Your task to perform on an android device: turn smart compose on in the gmail app Image 0: 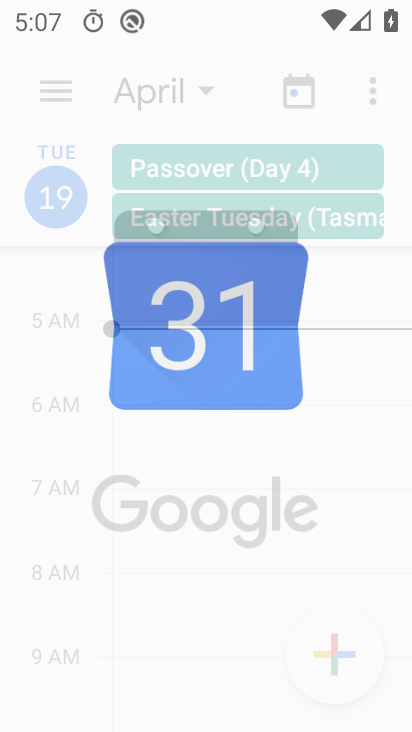
Step 0: drag from (223, 600) to (265, 168)
Your task to perform on an android device: turn smart compose on in the gmail app Image 1: 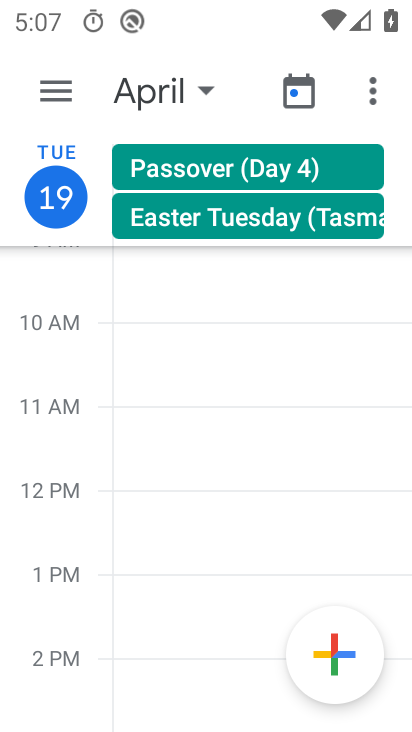
Step 1: press home button
Your task to perform on an android device: turn smart compose on in the gmail app Image 2: 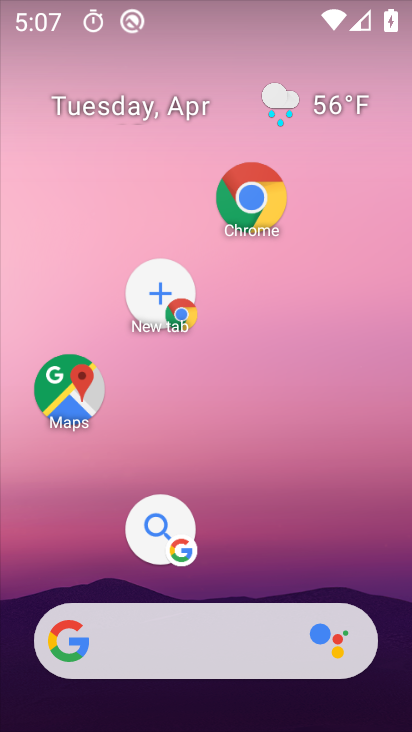
Step 2: drag from (226, 594) to (311, 154)
Your task to perform on an android device: turn smart compose on in the gmail app Image 3: 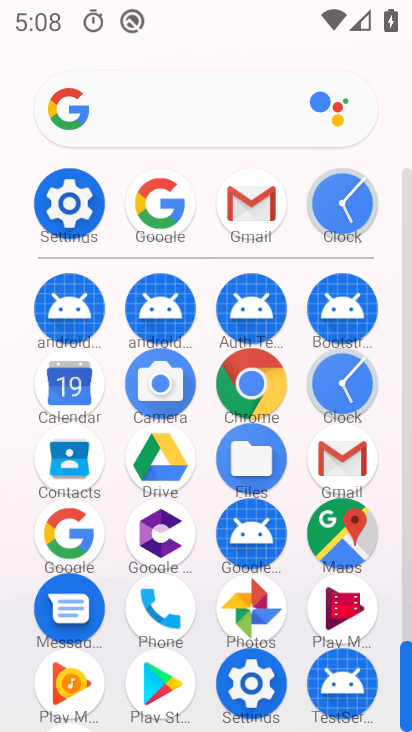
Step 3: click (63, 203)
Your task to perform on an android device: turn smart compose on in the gmail app Image 4: 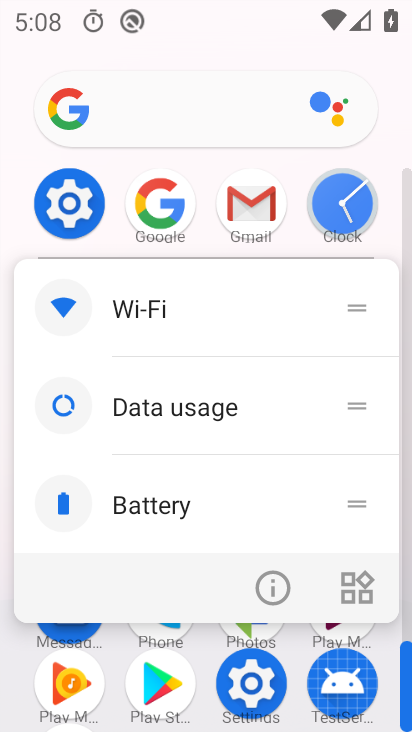
Step 4: click (75, 189)
Your task to perform on an android device: turn smart compose on in the gmail app Image 5: 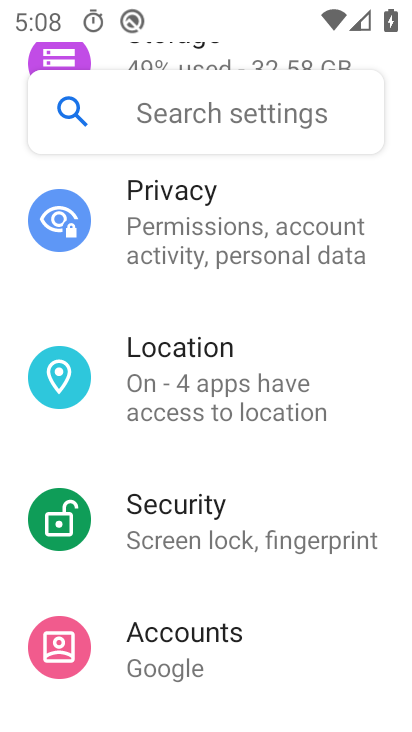
Step 5: drag from (168, 190) to (199, 612)
Your task to perform on an android device: turn smart compose on in the gmail app Image 6: 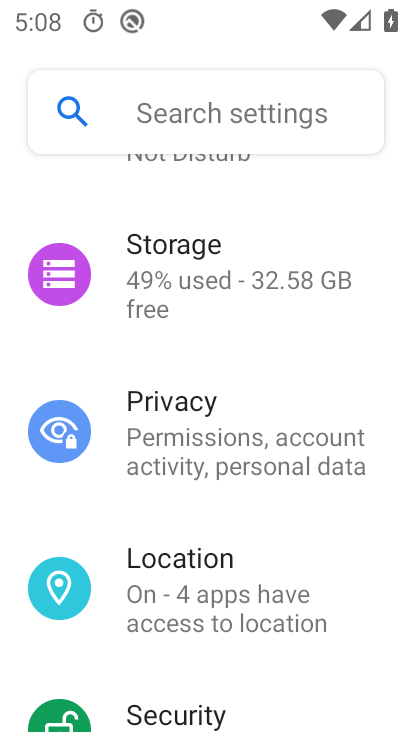
Step 6: drag from (298, 189) to (310, 603)
Your task to perform on an android device: turn smart compose on in the gmail app Image 7: 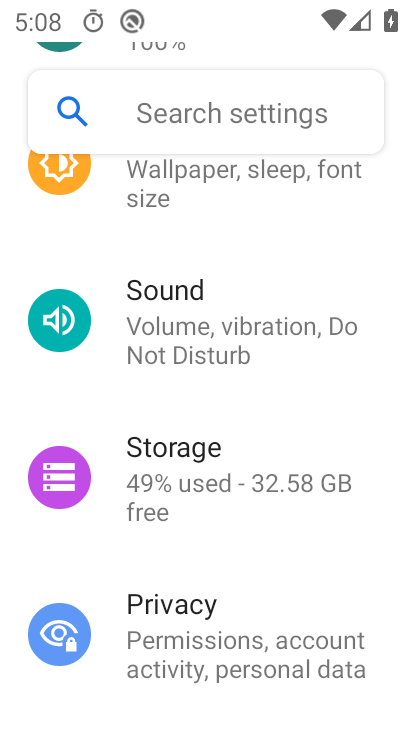
Step 7: drag from (277, 192) to (294, 600)
Your task to perform on an android device: turn smart compose on in the gmail app Image 8: 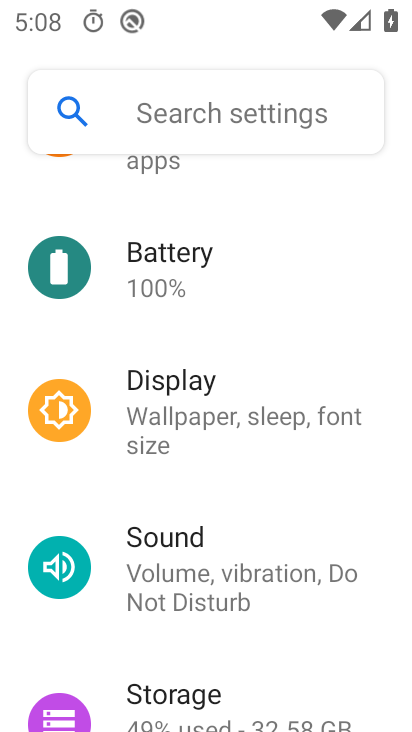
Step 8: drag from (288, 221) to (301, 683)
Your task to perform on an android device: turn smart compose on in the gmail app Image 9: 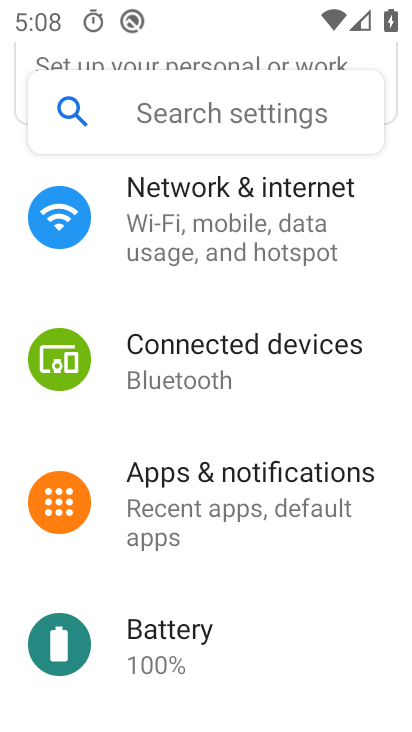
Step 9: click (223, 224)
Your task to perform on an android device: turn smart compose on in the gmail app Image 10: 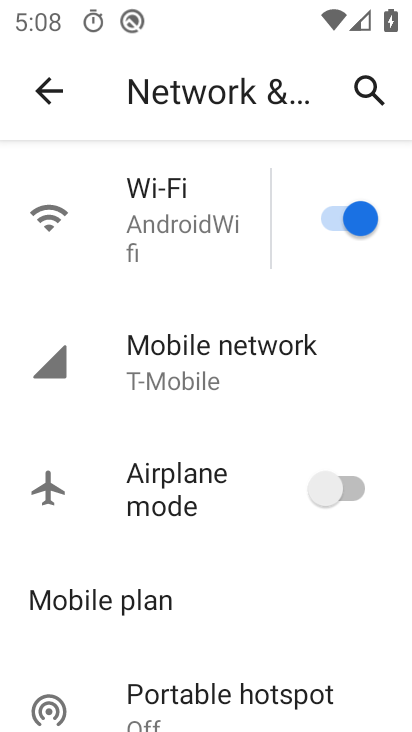
Step 10: task complete